Your task to perform on an android device: Toggle the flashlight Image 0: 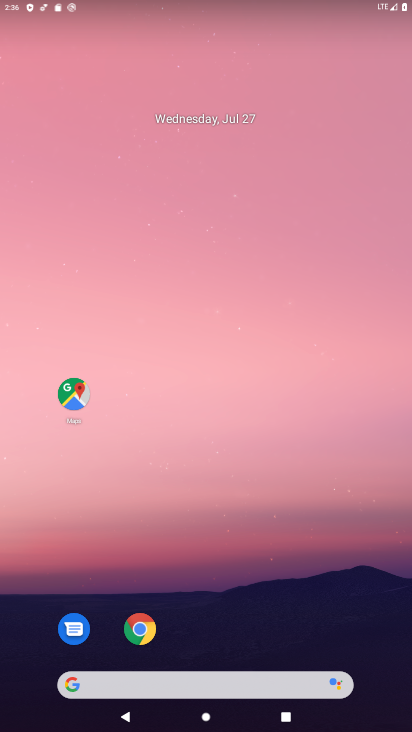
Step 0: drag from (236, 613) to (143, 105)
Your task to perform on an android device: Toggle the flashlight Image 1: 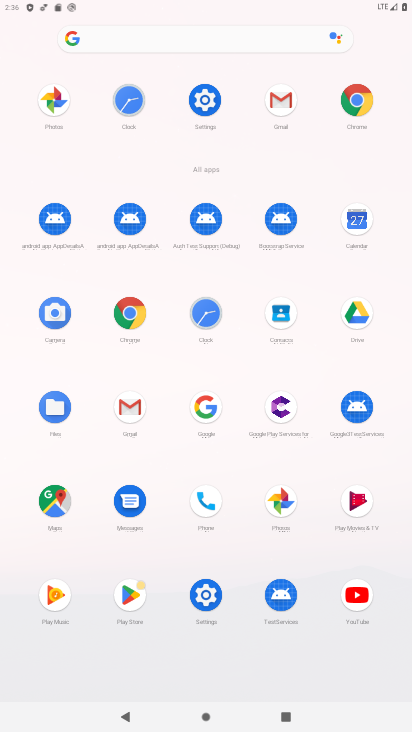
Step 1: click (210, 107)
Your task to perform on an android device: Toggle the flashlight Image 2: 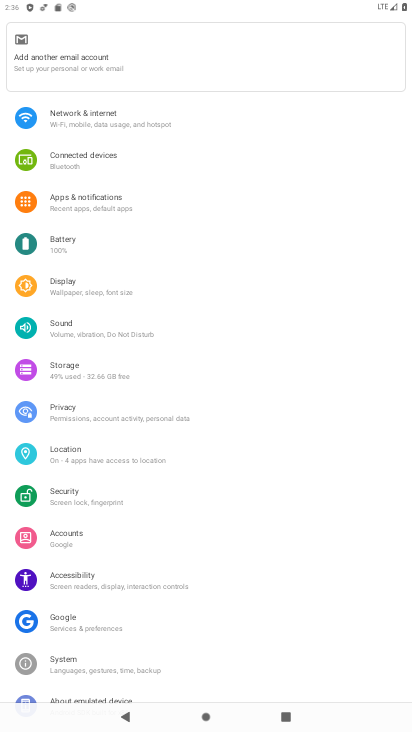
Step 2: task complete